Your task to perform on an android device: change notifications settings Image 0: 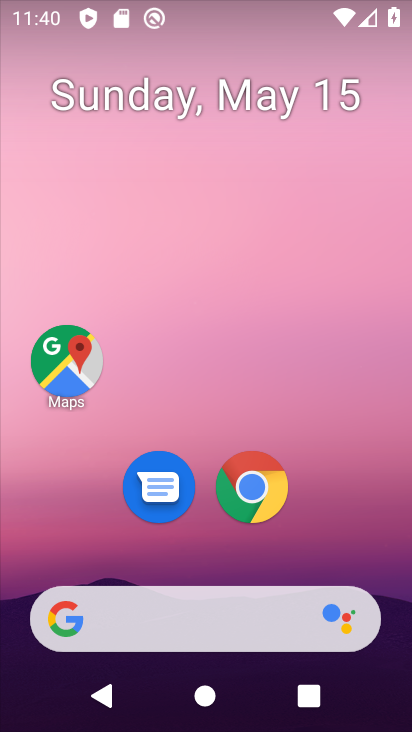
Step 0: drag from (277, 405) to (281, 118)
Your task to perform on an android device: change notifications settings Image 1: 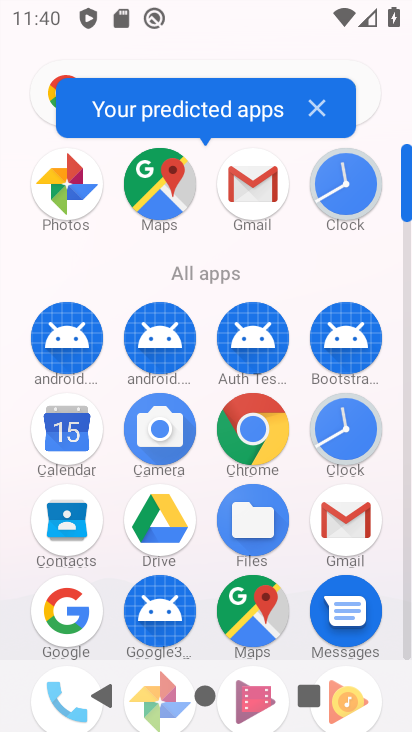
Step 1: drag from (235, 437) to (231, 171)
Your task to perform on an android device: change notifications settings Image 2: 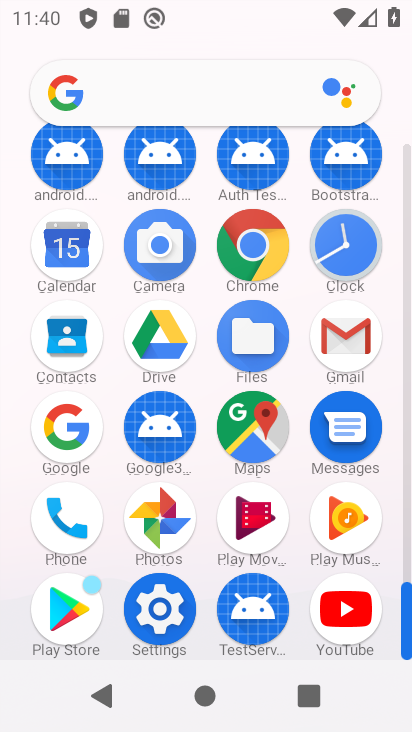
Step 2: click (171, 603)
Your task to perform on an android device: change notifications settings Image 3: 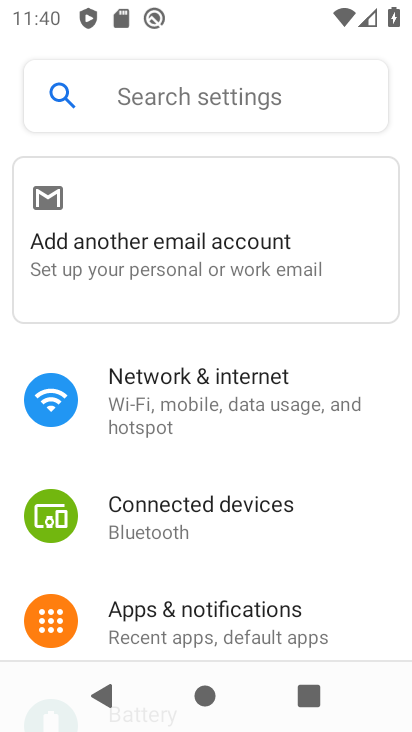
Step 3: drag from (219, 540) to (233, 277)
Your task to perform on an android device: change notifications settings Image 4: 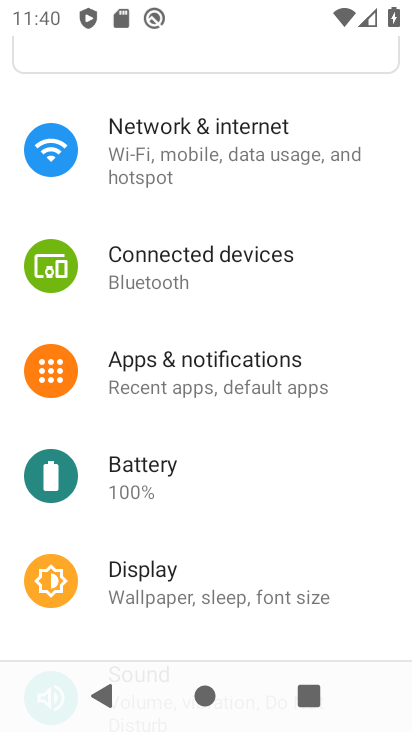
Step 4: drag from (183, 494) to (178, 298)
Your task to perform on an android device: change notifications settings Image 5: 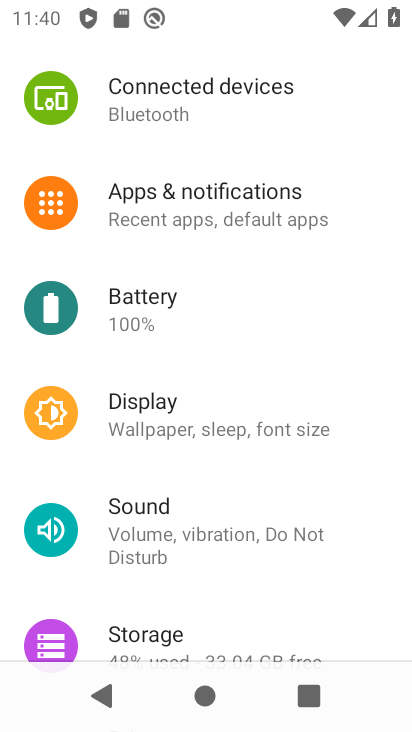
Step 5: drag from (170, 557) to (166, 362)
Your task to perform on an android device: change notifications settings Image 6: 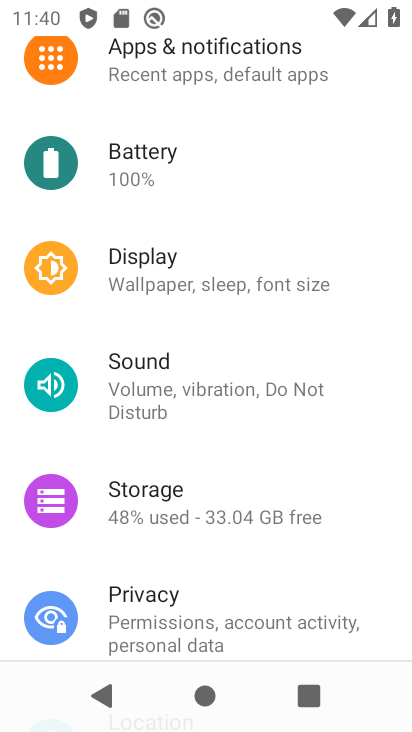
Step 6: drag from (166, 526) to (167, 316)
Your task to perform on an android device: change notifications settings Image 7: 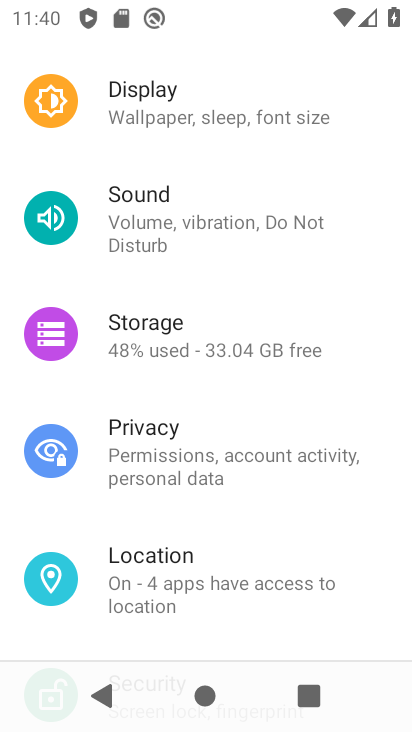
Step 7: drag from (231, 630) to (265, 730)
Your task to perform on an android device: change notifications settings Image 8: 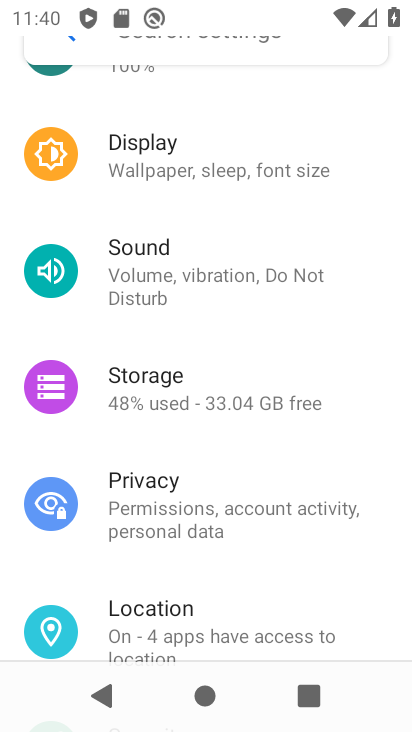
Step 8: drag from (238, 292) to (243, 651)
Your task to perform on an android device: change notifications settings Image 9: 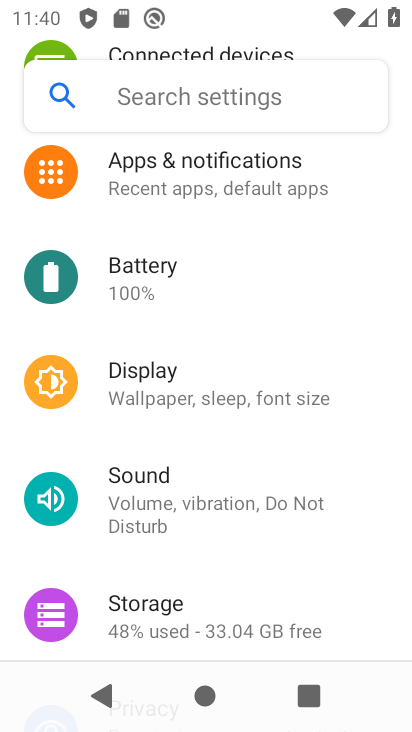
Step 9: click (254, 186)
Your task to perform on an android device: change notifications settings Image 10: 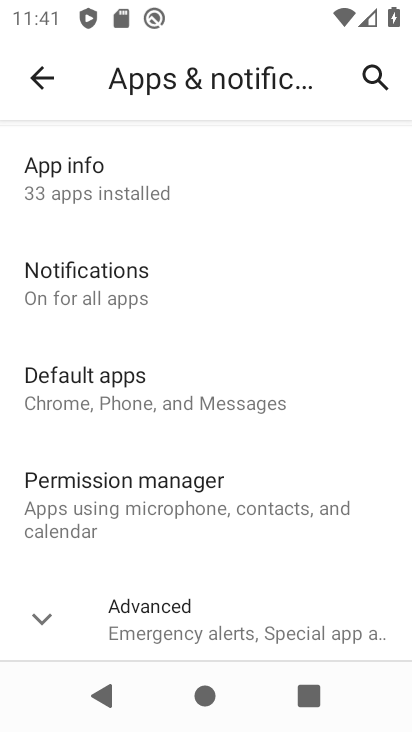
Step 10: drag from (130, 381) to (128, 226)
Your task to perform on an android device: change notifications settings Image 11: 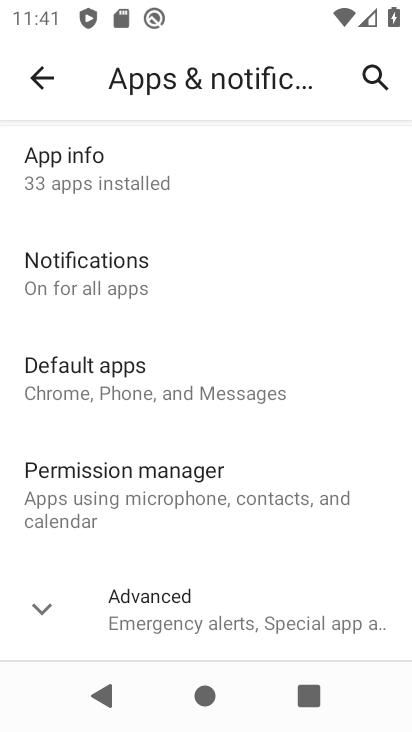
Step 11: click (147, 284)
Your task to perform on an android device: change notifications settings Image 12: 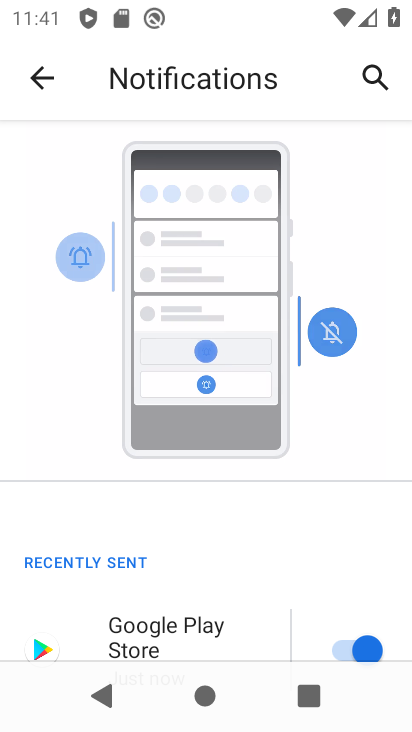
Step 12: click (346, 652)
Your task to perform on an android device: change notifications settings Image 13: 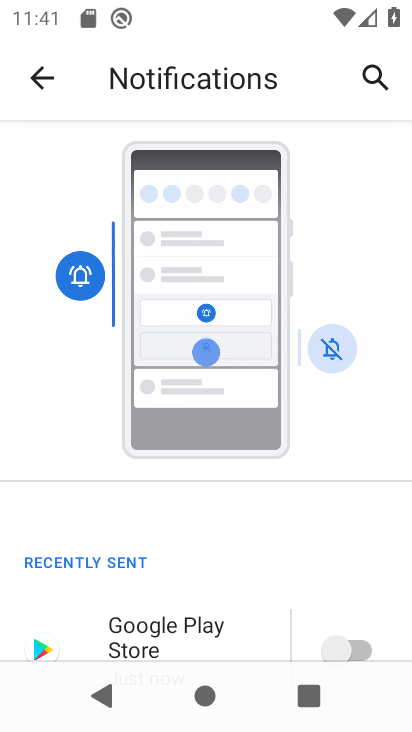
Step 13: task complete